Your task to perform on an android device: turn on showing notifications on the lock screen Image 0: 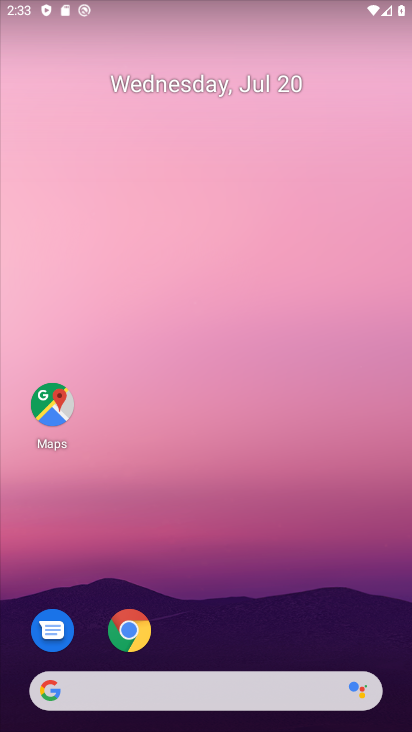
Step 0: drag from (255, 646) to (279, 42)
Your task to perform on an android device: turn on showing notifications on the lock screen Image 1: 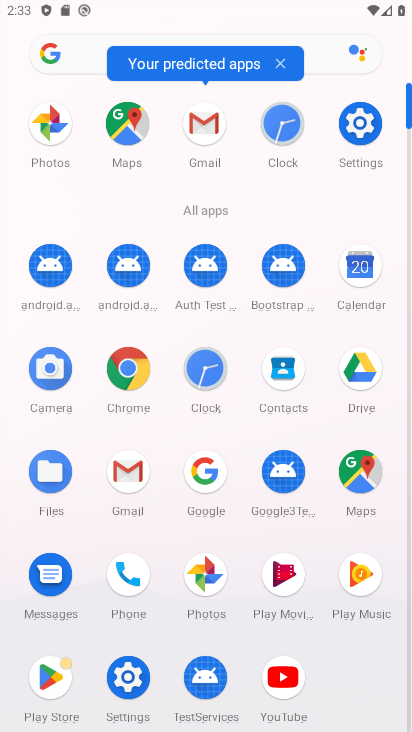
Step 1: click (134, 685)
Your task to perform on an android device: turn on showing notifications on the lock screen Image 2: 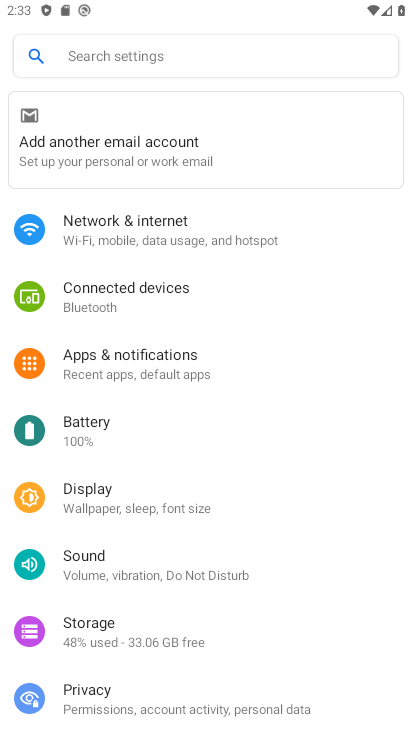
Step 2: click (133, 365)
Your task to perform on an android device: turn on showing notifications on the lock screen Image 3: 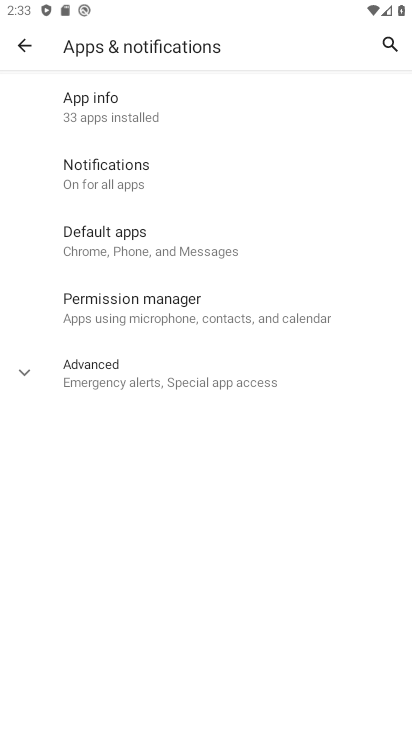
Step 3: click (186, 181)
Your task to perform on an android device: turn on showing notifications on the lock screen Image 4: 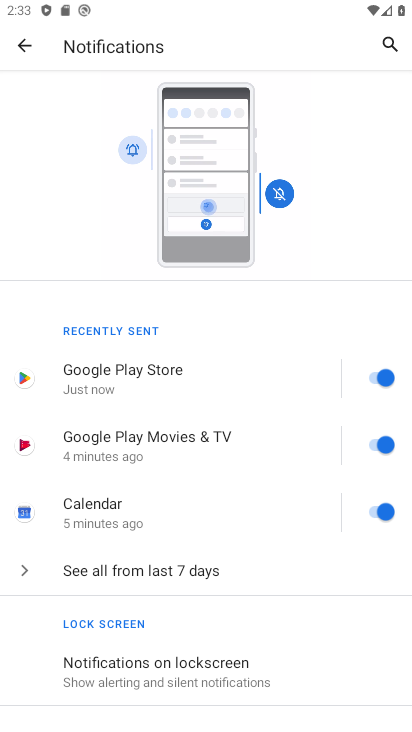
Step 4: drag from (196, 655) to (242, 405)
Your task to perform on an android device: turn on showing notifications on the lock screen Image 5: 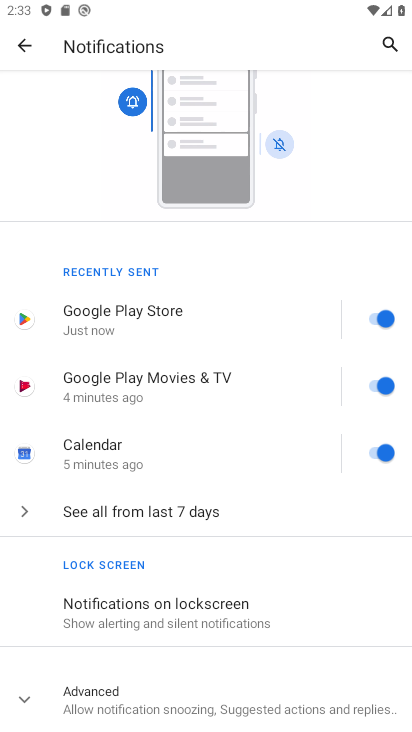
Step 5: click (302, 609)
Your task to perform on an android device: turn on showing notifications on the lock screen Image 6: 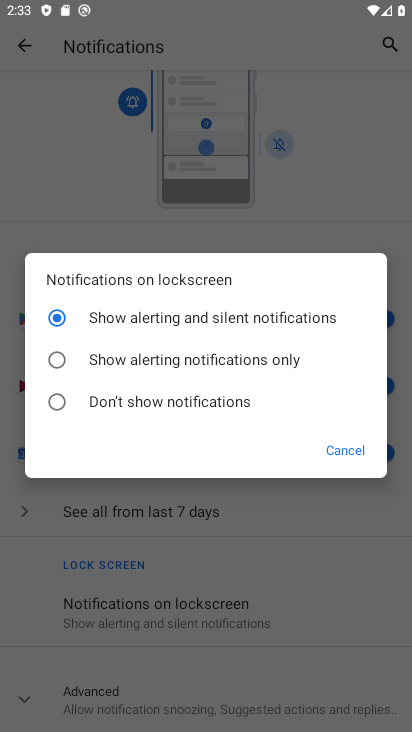
Step 6: task complete